Your task to perform on an android device: Open Google Chrome and open the bookmarks view Image 0: 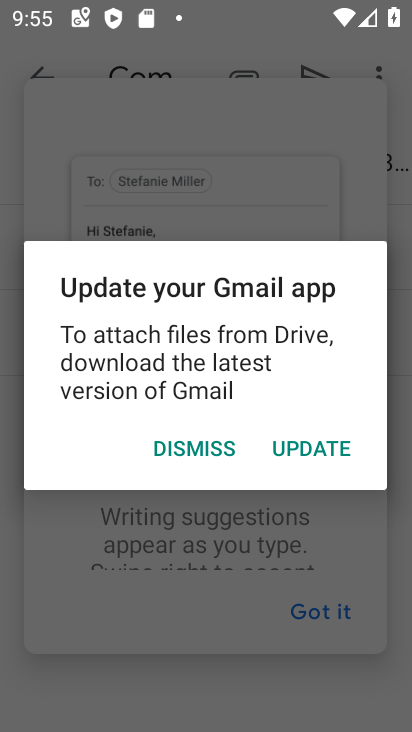
Step 0: press home button
Your task to perform on an android device: Open Google Chrome and open the bookmarks view Image 1: 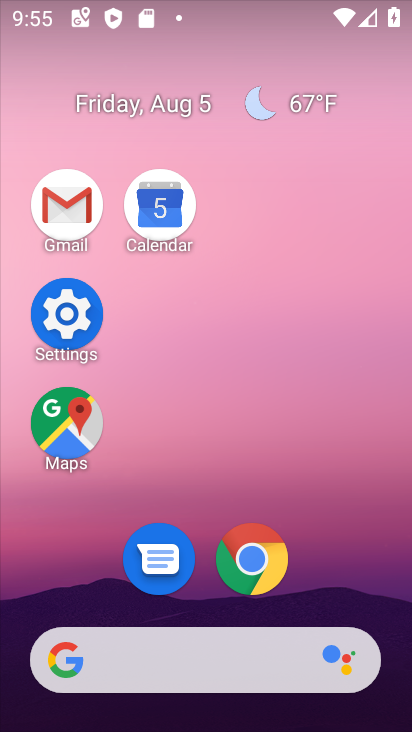
Step 1: click (242, 555)
Your task to perform on an android device: Open Google Chrome and open the bookmarks view Image 2: 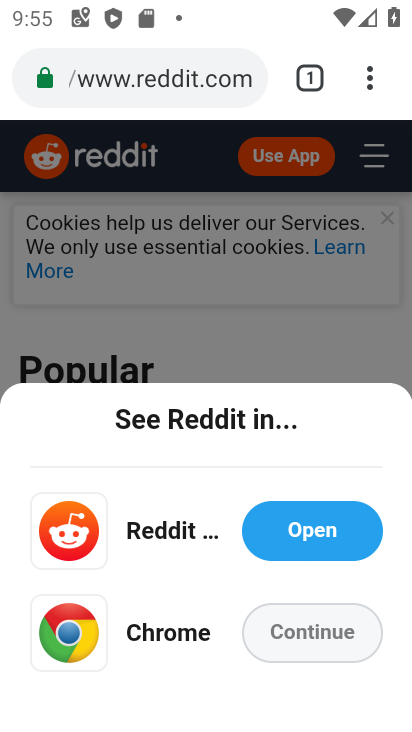
Step 2: click (371, 74)
Your task to perform on an android device: Open Google Chrome and open the bookmarks view Image 3: 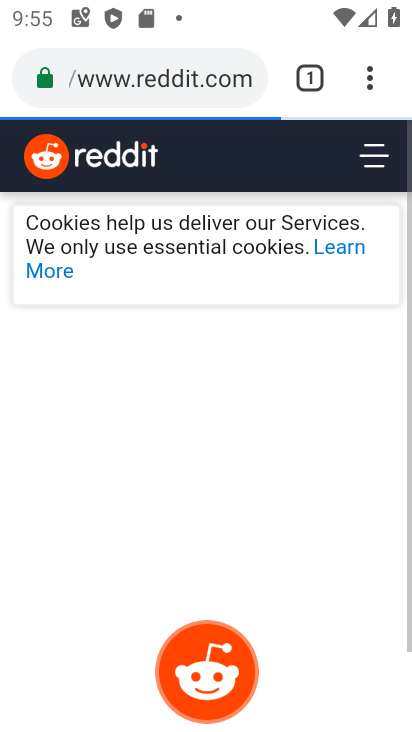
Step 3: click (359, 77)
Your task to perform on an android device: Open Google Chrome and open the bookmarks view Image 4: 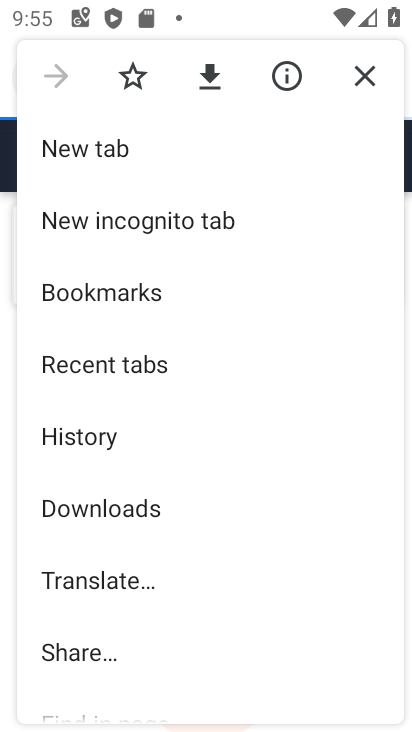
Step 4: click (176, 302)
Your task to perform on an android device: Open Google Chrome and open the bookmarks view Image 5: 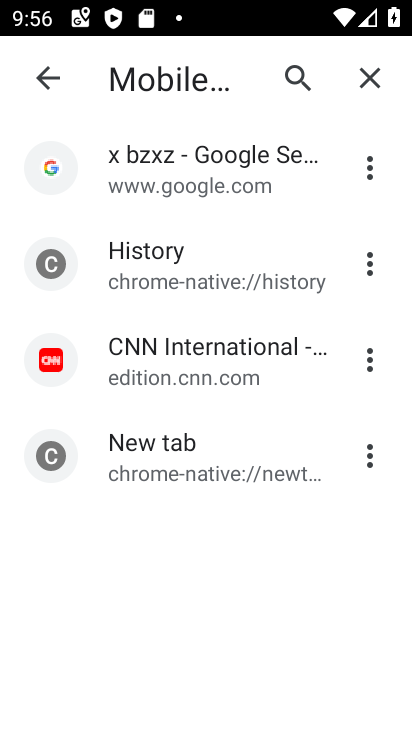
Step 5: task complete